Your task to perform on an android device: turn off smart reply in the gmail app Image 0: 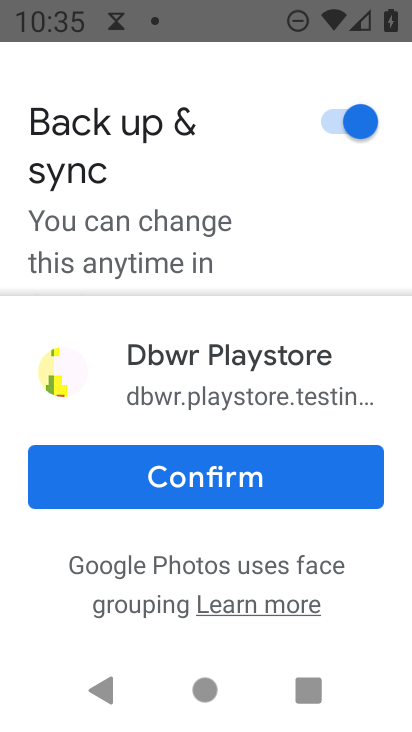
Step 0: press home button
Your task to perform on an android device: turn off smart reply in the gmail app Image 1: 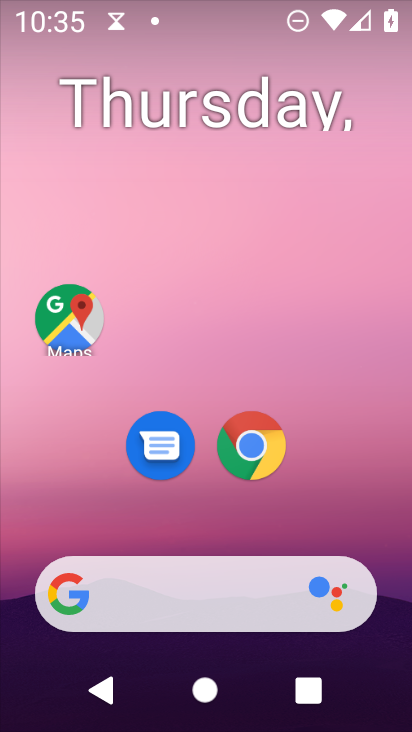
Step 1: drag from (239, 704) to (235, 97)
Your task to perform on an android device: turn off smart reply in the gmail app Image 2: 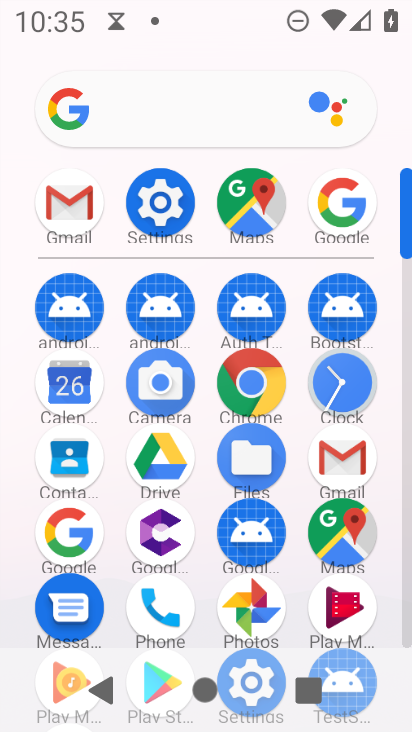
Step 2: click (341, 449)
Your task to perform on an android device: turn off smart reply in the gmail app Image 3: 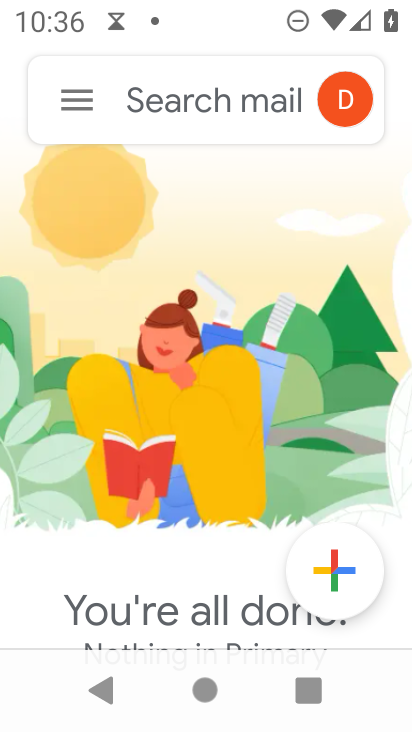
Step 3: click (77, 107)
Your task to perform on an android device: turn off smart reply in the gmail app Image 4: 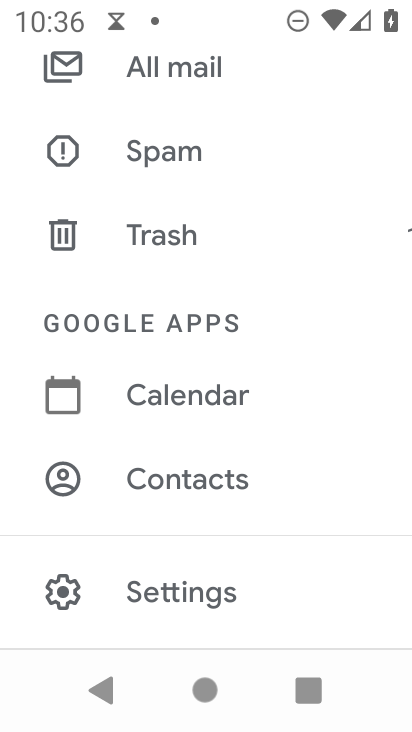
Step 4: click (178, 588)
Your task to perform on an android device: turn off smart reply in the gmail app Image 5: 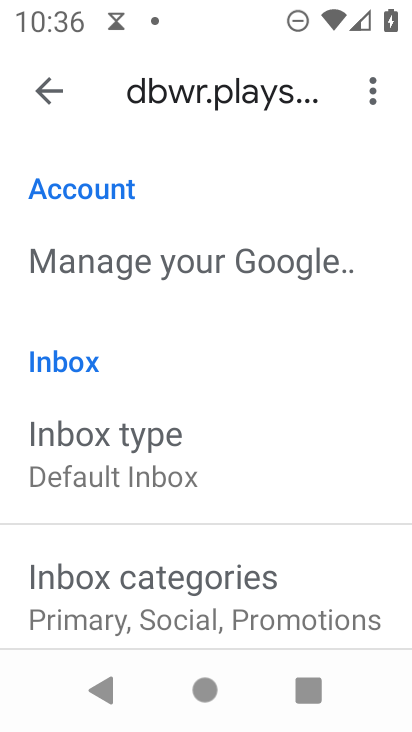
Step 5: drag from (243, 627) to (243, 133)
Your task to perform on an android device: turn off smart reply in the gmail app Image 6: 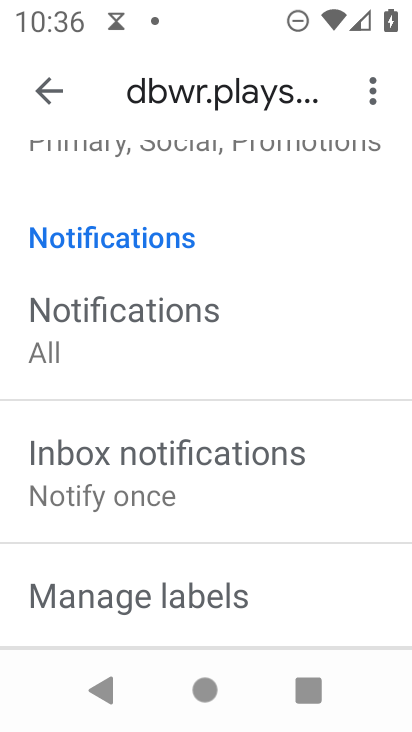
Step 6: drag from (214, 631) to (220, 58)
Your task to perform on an android device: turn off smart reply in the gmail app Image 7: 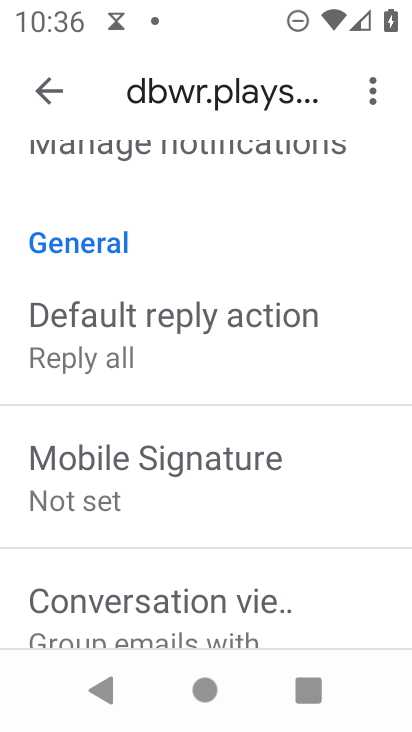
Step 7: drag from (325, 637) to (318, 82)
Your task to perform on an android device: turn off smart reply in the gmail app Image 8: 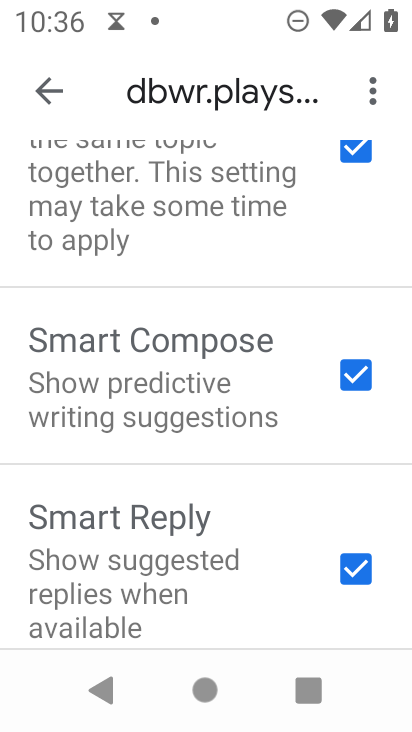
Step 8: click (356, 572)
Your task to perform on an android device: turn off smart reply in the gmail app Image 9: 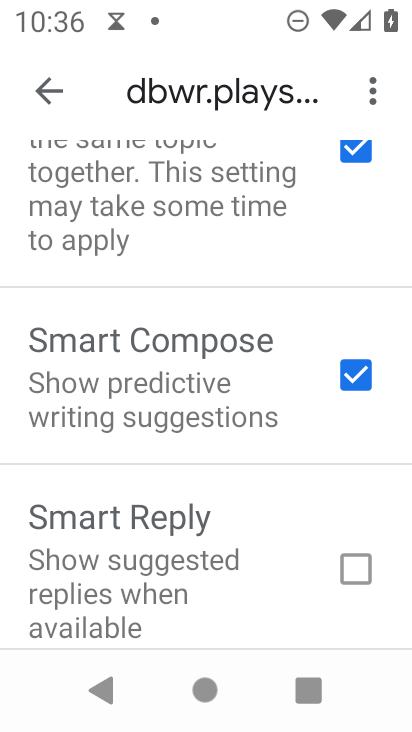
Step 9: task complete